Your task to perform on an android device: Go to sound settings Image 0: 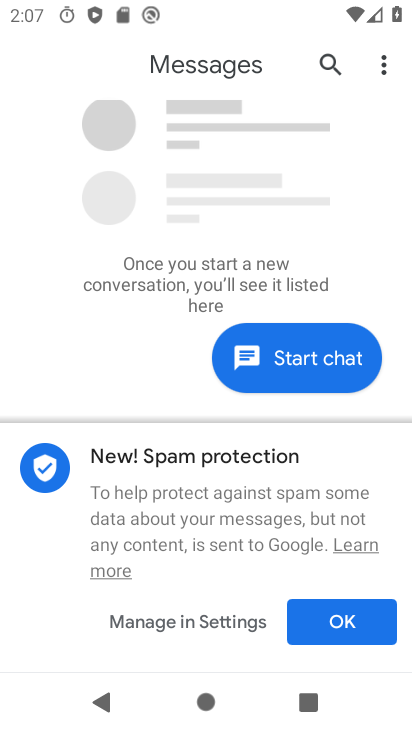
Step 0: press back button
Your task to perform on an android device: Go to sound settings Image 1: 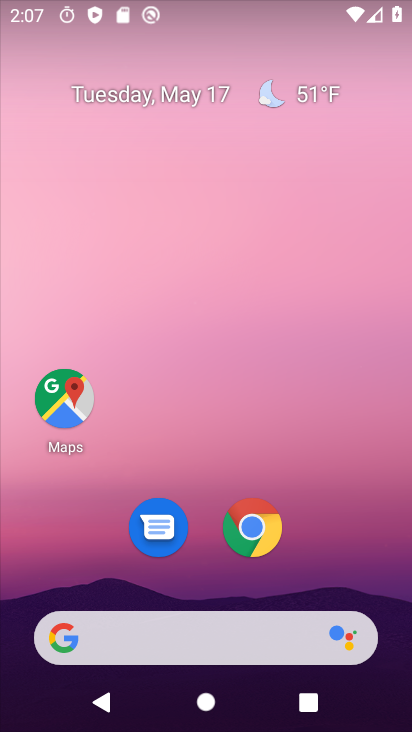
Step 1: drag from (321, 575) to (305, 152)
Your task to perform on an android device: Go to sound settings Image 2: 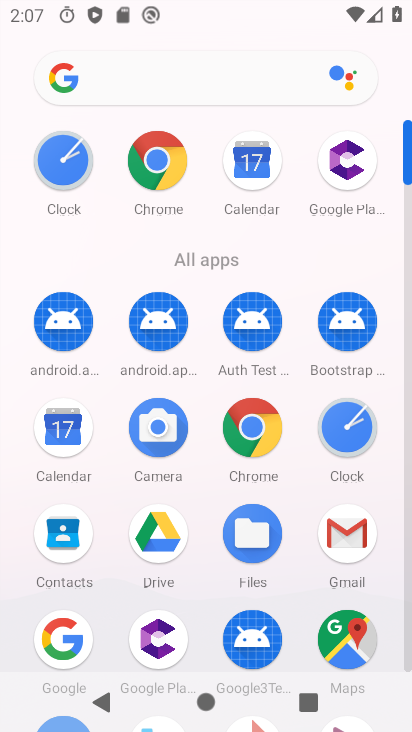
Step 2: drag from (221, 580) to (216, 384)
Your task to perform on an android device: Go to sound settings Image 3: 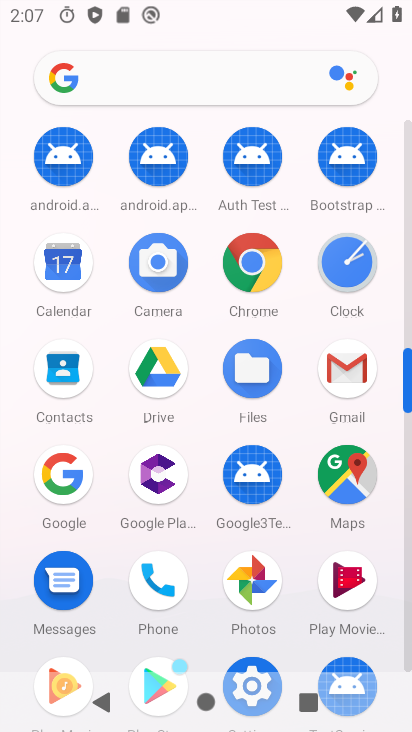
Step 3: drag from (217, 574) to (197, 361)
Your task to perform on an android device: Go to sound settings Image 4: 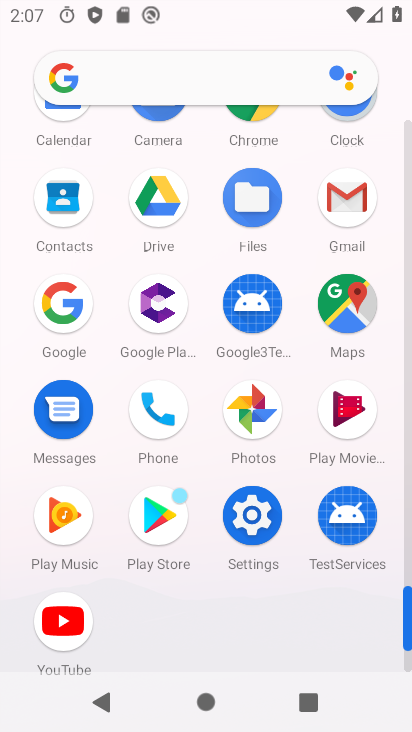
Step 4: click (253, 515)
Your task to perform on an android device: Go to sound settings Image 5: 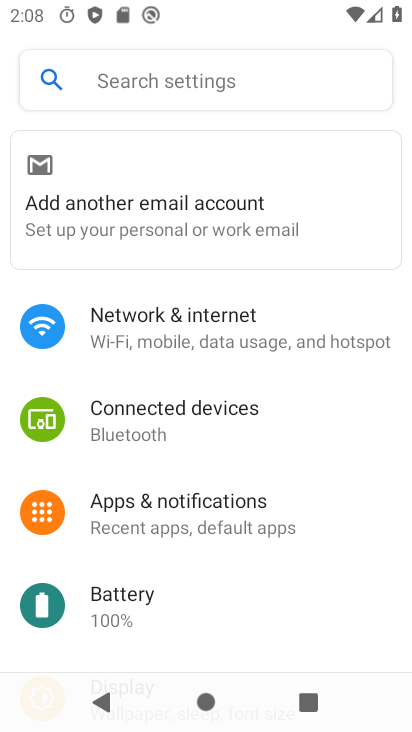
Step 5: drag from (158, 553) to (199, 420)
Your task to perform on an android device: Go to sound settings Image 6: 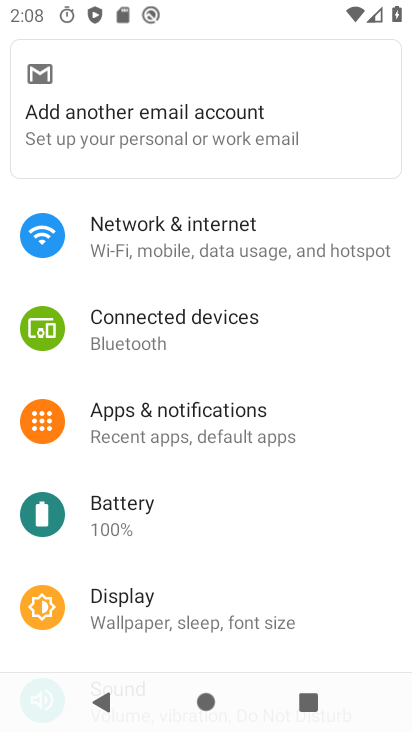
Step 6: drag from (136, 550) to (211, 427)
Your task to perform on an android device: Go to sound settings Image 7: 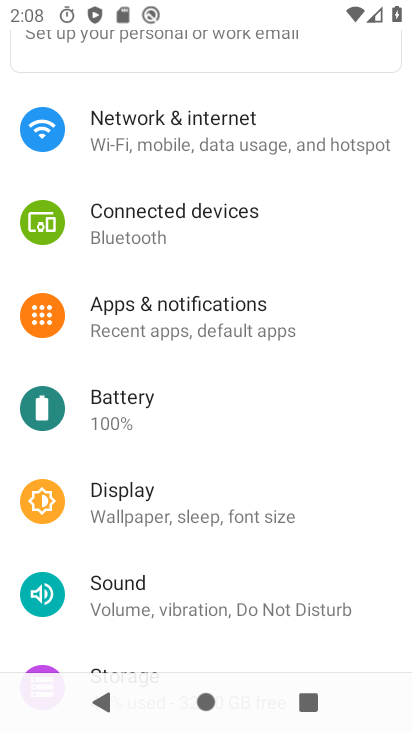
Step 7: drag from (141, 556) to (222, 416)
Your task to perform on an android device: Go to sound settings Image 8: 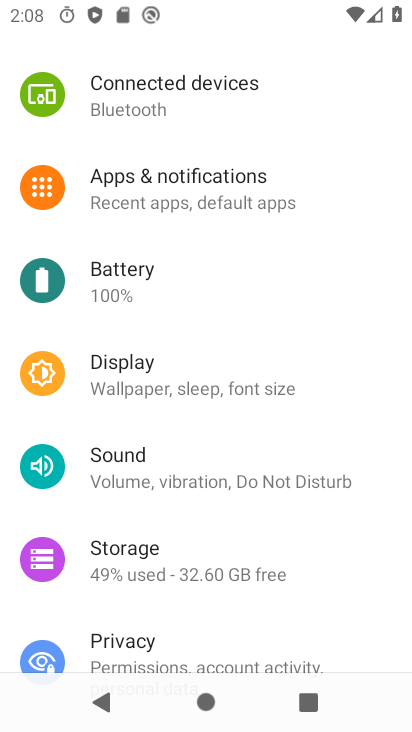
Step 8: click (134, 465)
Your task to perform on an android device: Go to sound settings Image 9: 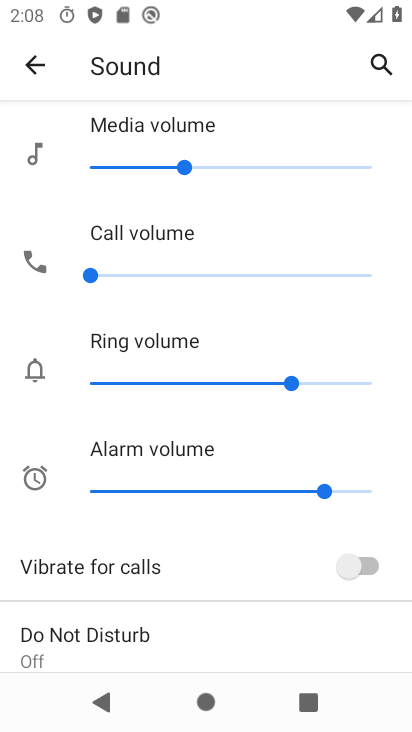
Step 9: task complete